Your task to perform on an android device: Open the Play Movies app and select the watchlist tab. Image 0: 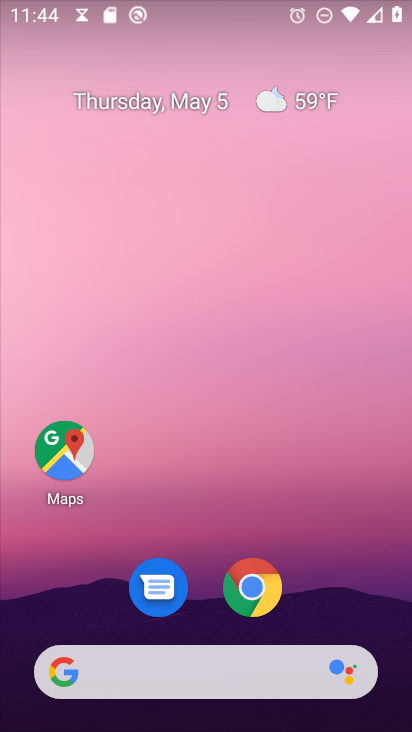
Step 0: drag from (352, 520) to (307, 25)
Your task to perform on an android device: Open the Play Movies app and select the watchlist tab. Image 1: 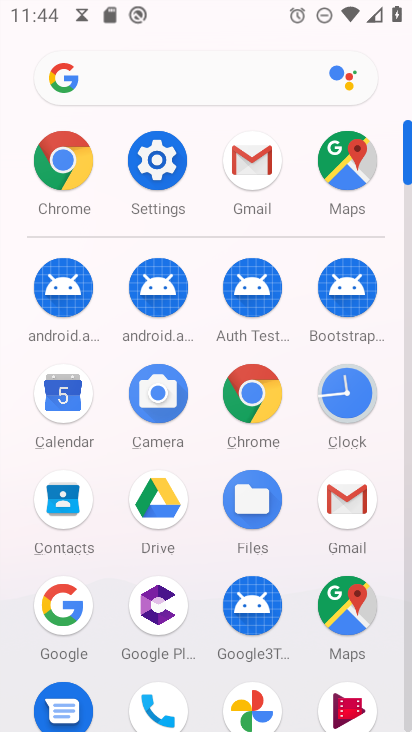
Step 1: drag from (19, 527) to (33, 258)
Your task to perform on an android device: Open the Play Movies app and select the watchlist tab. Image 2: 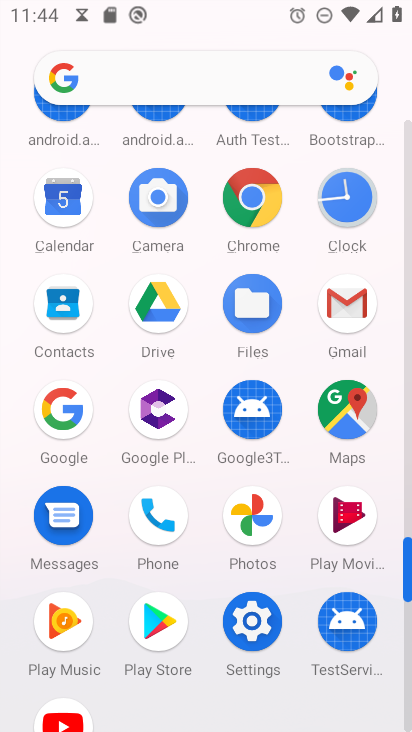
Step 2: drag from (13, 563) to (21, 315)
Your task to perform on an android device: Open the Play Movies app and select the watchlist tab. Image 3: 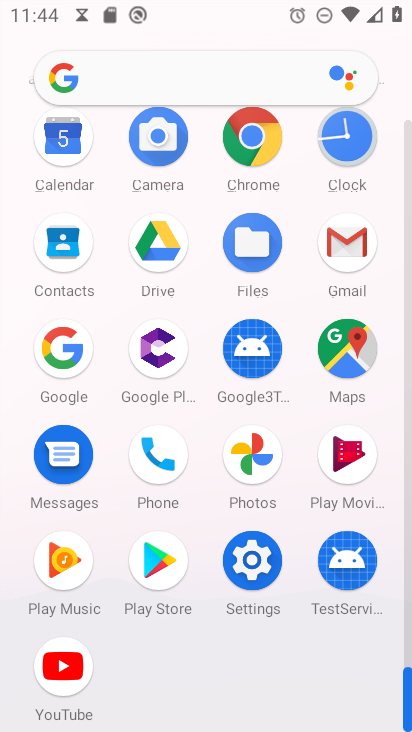
Step 3: click (352, 452)
Your task to perform on an android device: Open the Play Movies app and select the watchlist tab. Image 4: 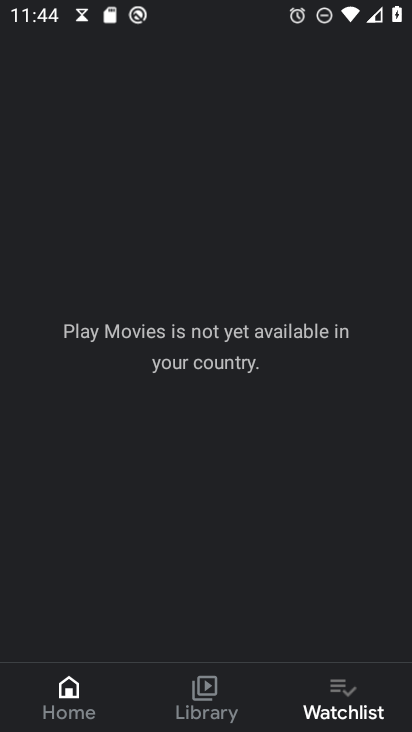
Step 4: task complete